Your task to perform on an android device: Is it going to rain this weekend? Image 0: 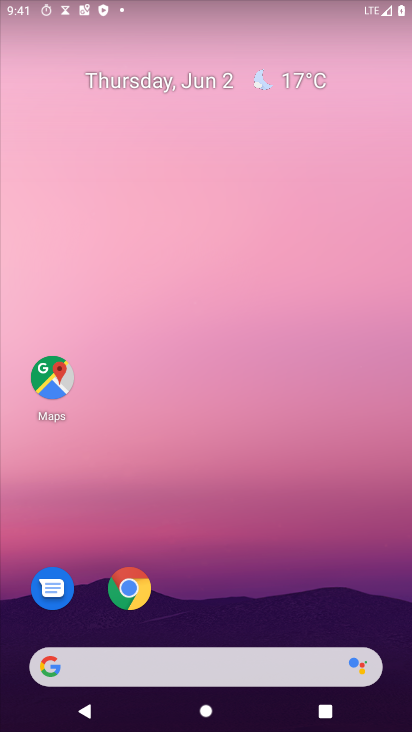
Step 0: click (261, 82)
Your task to perform on an android device: Is it going to rain this weekend? Image 1: 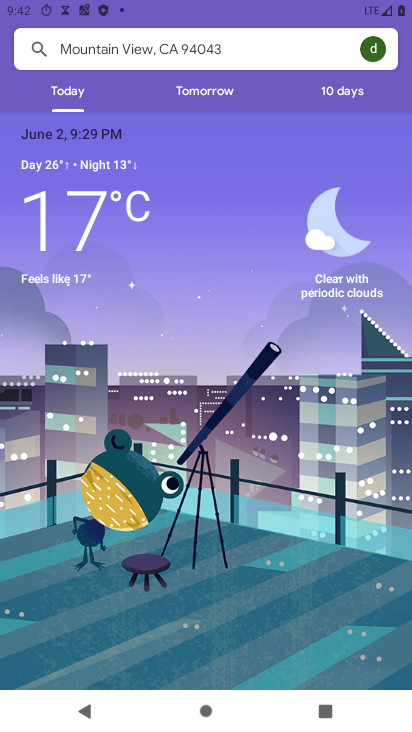
Step 1: click (331, 89)
Your task to perform on an android device: Is it going to rain this weekend? Image 2: 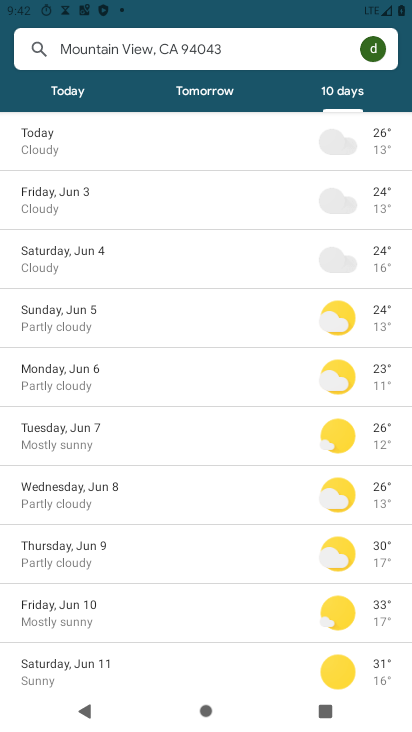
Step 2: task complete